Your task to perform on an android device: Open Maps and search for coffee Image 0: 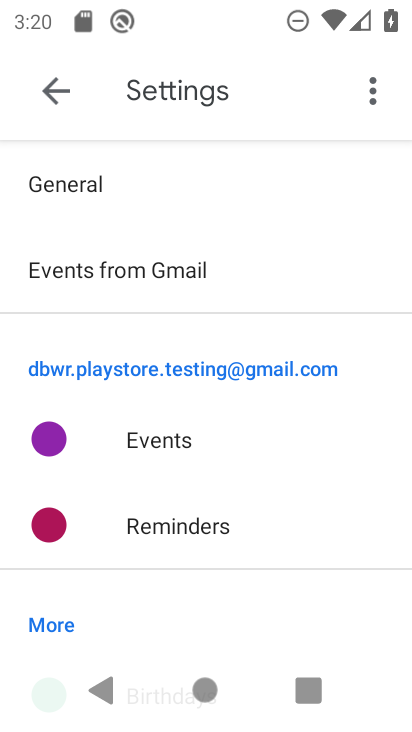
Step 0: press home button
Your task to perform on an android device: Open Maps and search for coffee Image 1: 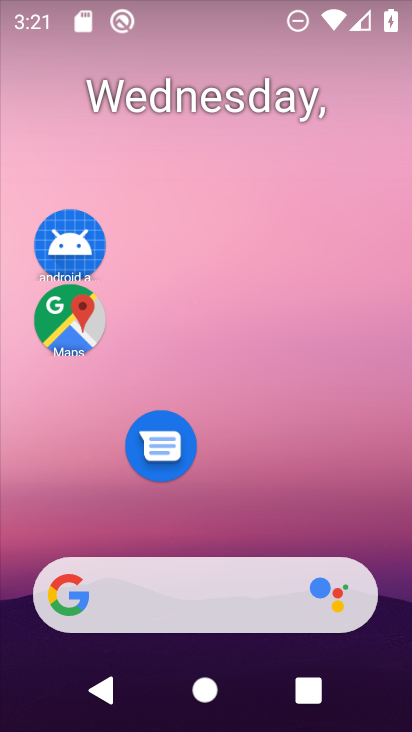
Step 1: click (64, 338)
Your task to perform on an android device: Open Maps and search for coffee Image 2: 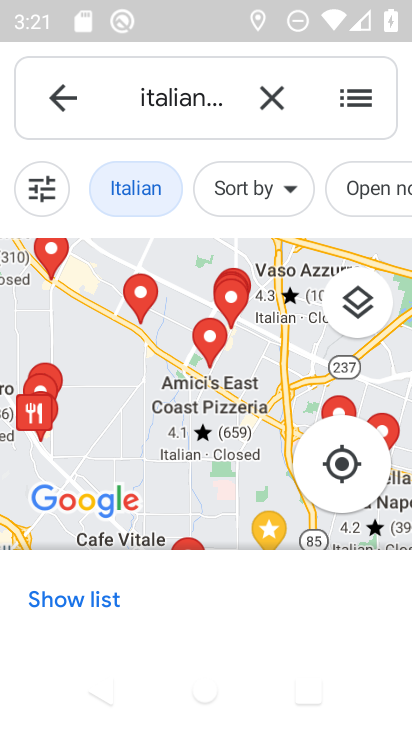
Step 2: click (291, 114)
Your task to perform on an android device: Open Maps and search for coffee Image 3: 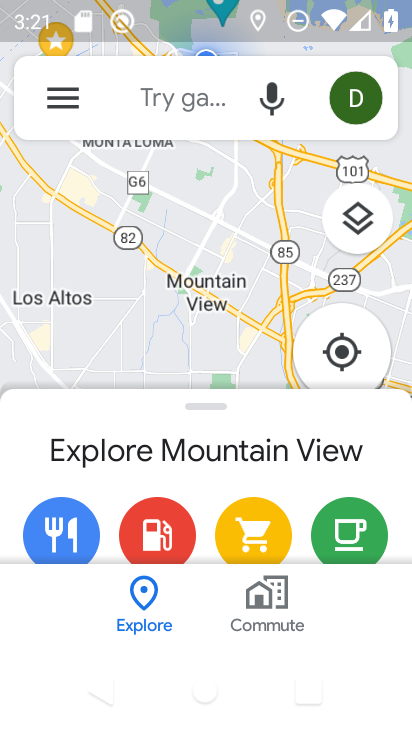
Step 3: click (220, 98)
Your task to perform on an android device: Open Maps and search for coffee Image 4: 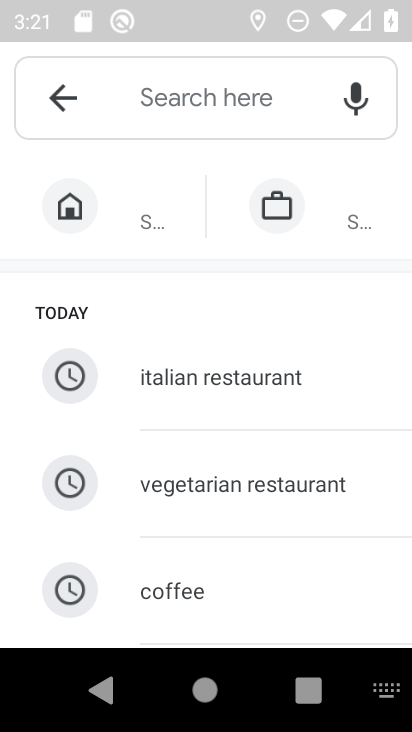
Step 4: click (252, 553)
Your task to perform on an android device: Open Maps and search for coffee Image 5: 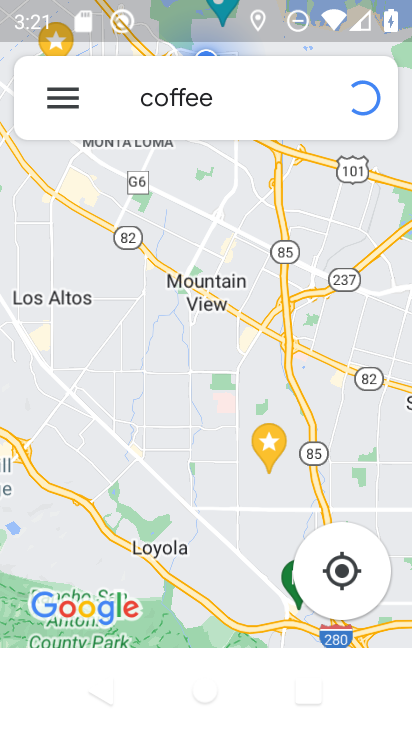
Step 5: task complete